Your task to perform on an android device: change the clock display to analog Image 0: 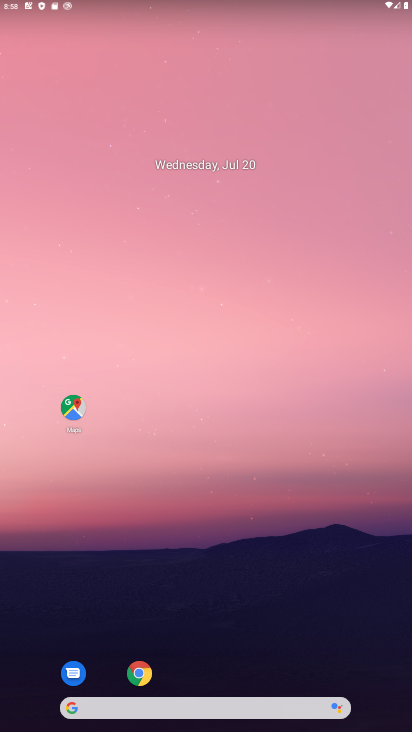
Step 0: drag from (212, 668) to (259, 37)
Your task to perform on an android device: change the clock display to analog Image 1: 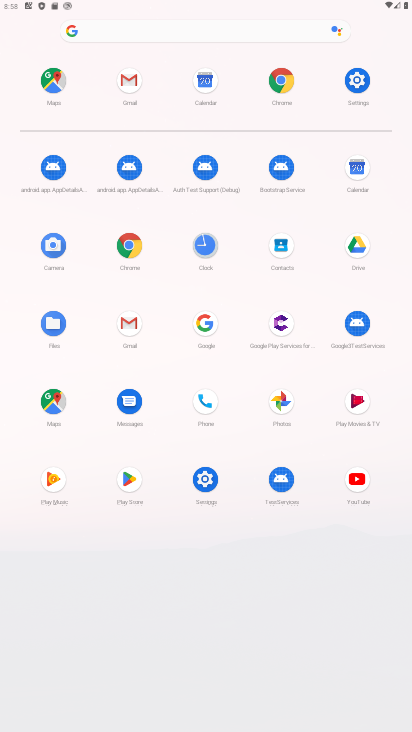
Step 1: drag from (223, 680) to (250, 221)
Your task to perform on an android device: change the clock display to analog Image 2: 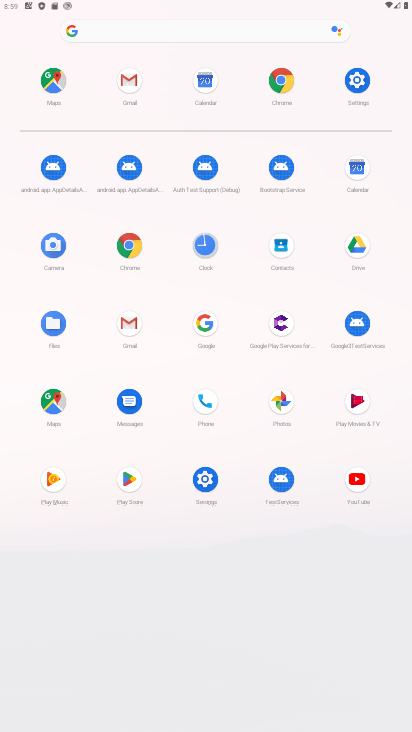
Step 2: click (198, 248)
Your task to perform on an android device: change the clock display to analog Image 3: 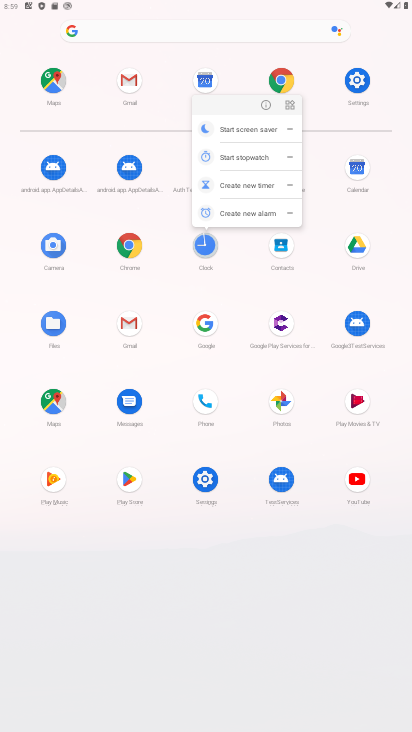
Step 3: click (265, 103)
Your task to perform on an android device: change the clock display to analog Image 4: 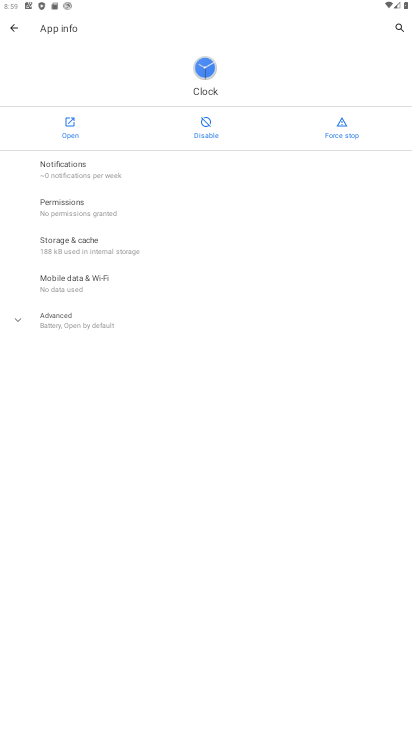
Step 4: click (71, 126)
Your task to perform on an android device: change the clock display to analog Image 5: 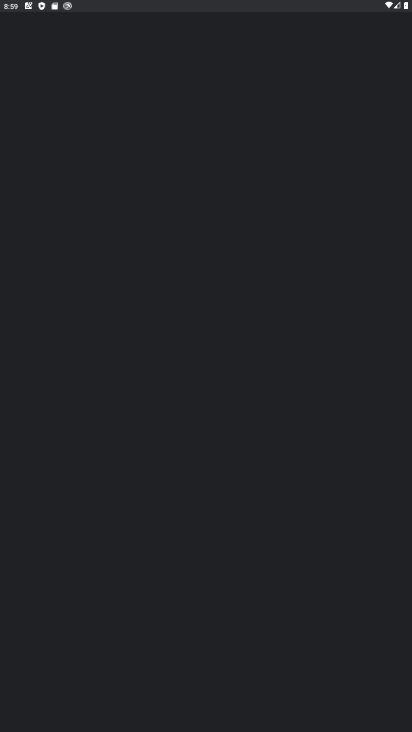
Step 5: drag from (199, 494) to (210, 136)
Your task to perform on an android device: change the clock display to analog Image 6: 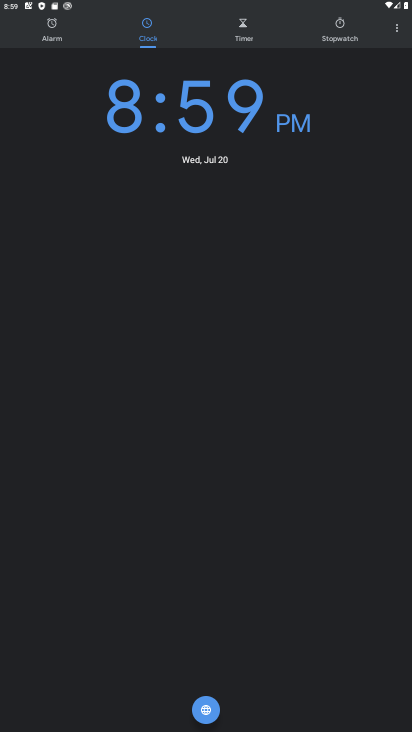
Step 6: drag from (300, 592) to (286, 415)
Your task to perform on an android device: change the clock display to analog Image 7: 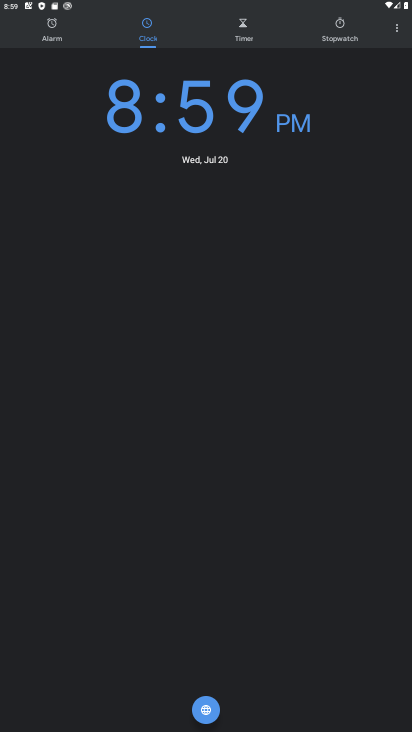
Step 7: click (392, 23)
Your task to perform on an android device: change the clock display to analog Image 8: 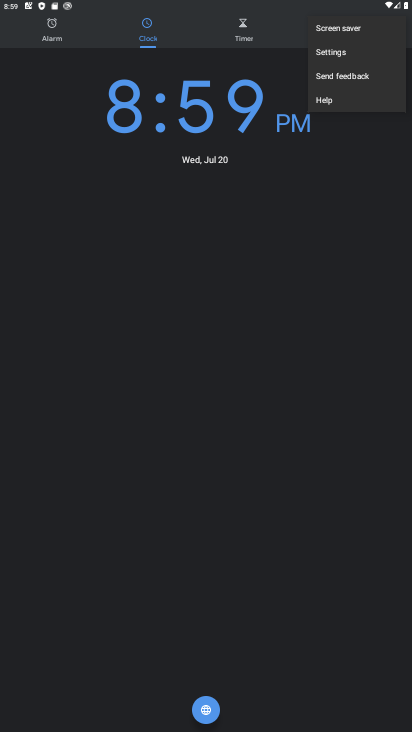
Step 8: click (342, 49)
Your task to perform on an android device: change the clock display to analog Image 9: 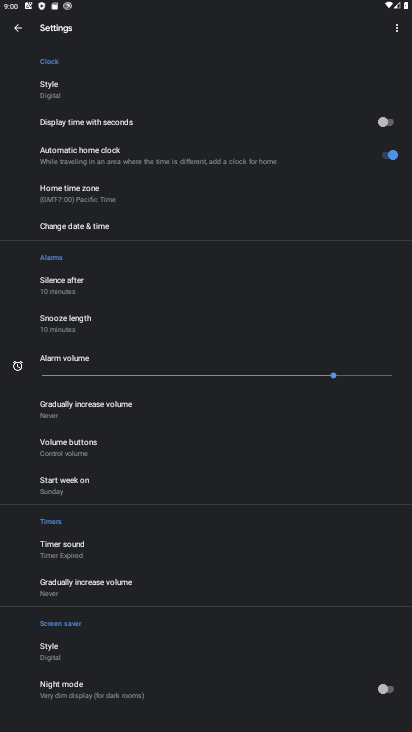
Step 9: drag from (200, 596) to (249, 217)
Your task to perform on an android device: change the clock display to analog Image 10: 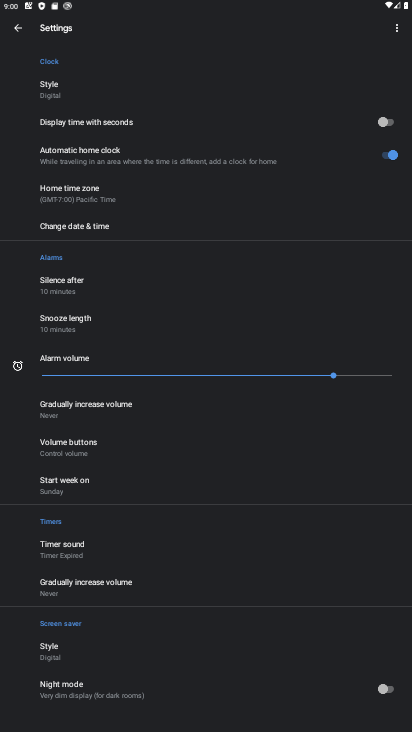
Step 10: drag from (231, 191) to (178, 690)
Your task to perform on an android device: change the clock display to analog Image 11: 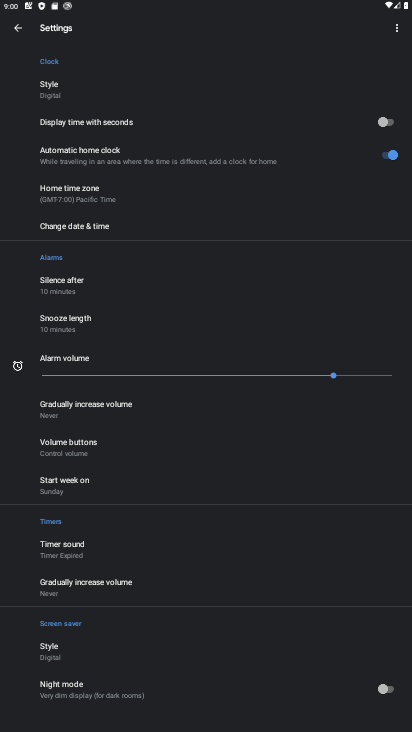
Step 11: click (70, 95)
Your task to perform on an android device: change the clock display to analog Image 12: 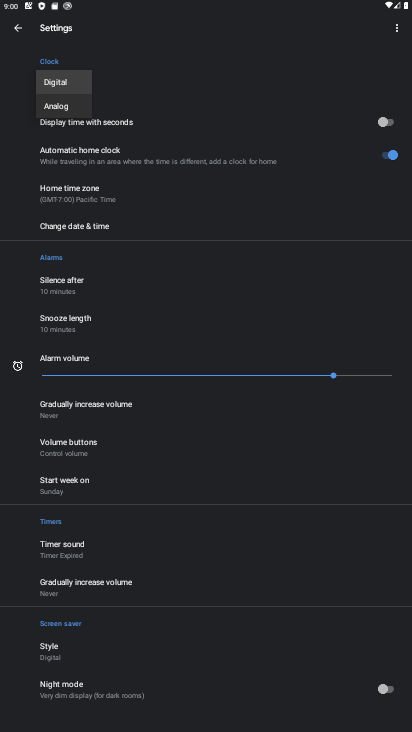
Step 12: click (40, 108)
Your task to perform on an android device: change the clock display to analog Image 13: 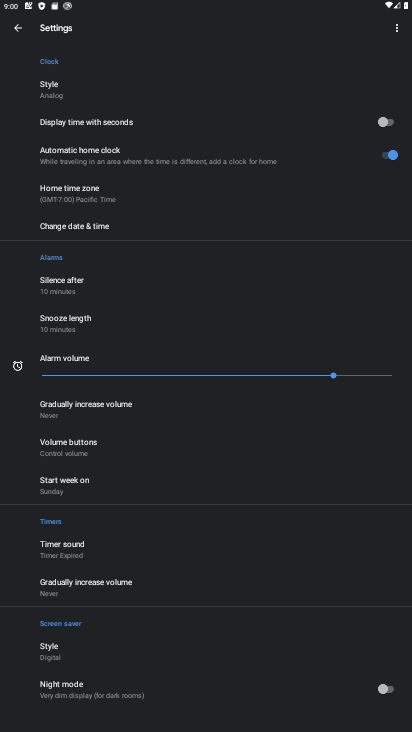
Step 13: task complete